Your task to perform on an android device: Go to Maps Image 0: 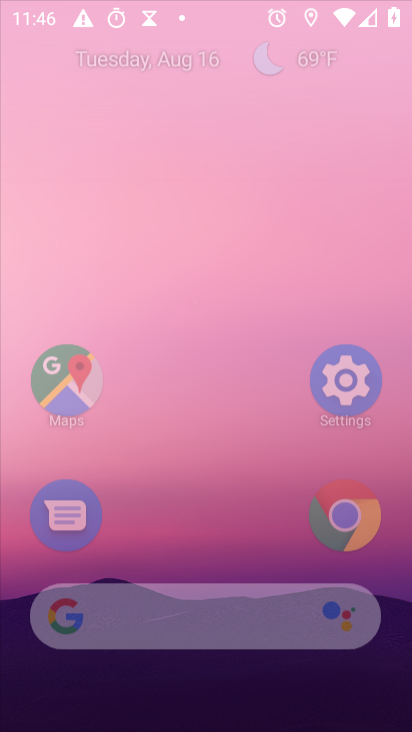
Step 0: click (155, 646)
Your task to perform on an android device: Go to Maps Image 1: 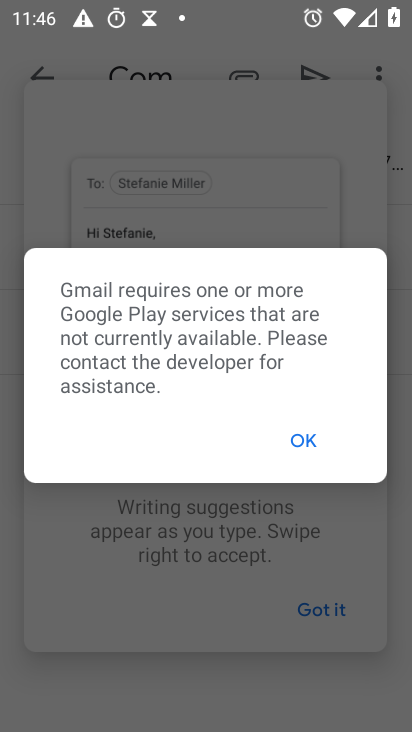
Step 1: press home button
Your task to perform on an android device: Go to Maps Image 2: 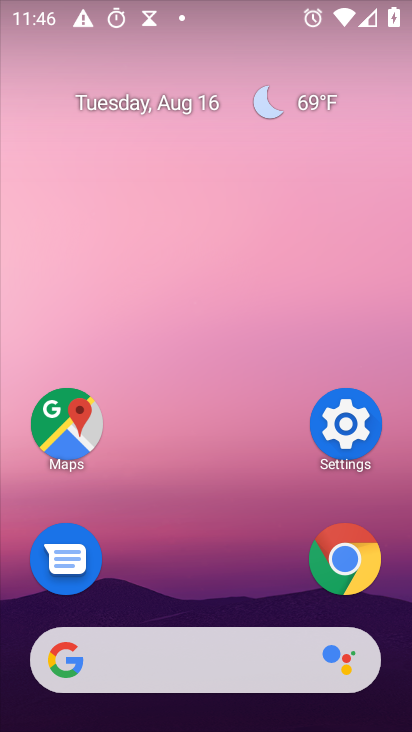
Step 2: click (61, 422)
Your task to perform on an android device: Go to Maps Image 3: 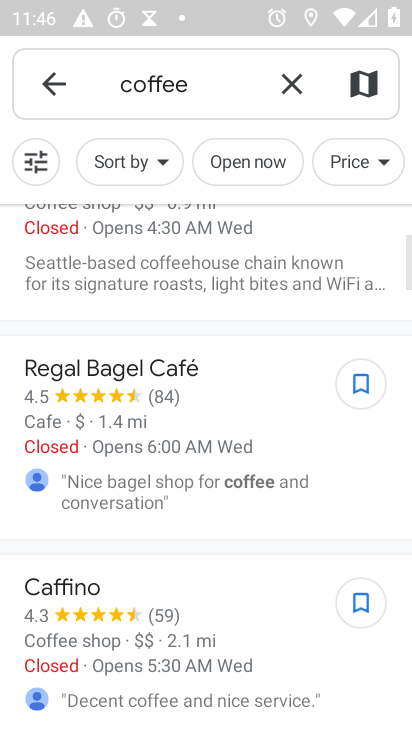
Step 3: task complete